Your task to perform on an android device: turn off javascript in the chrome app Image 0: 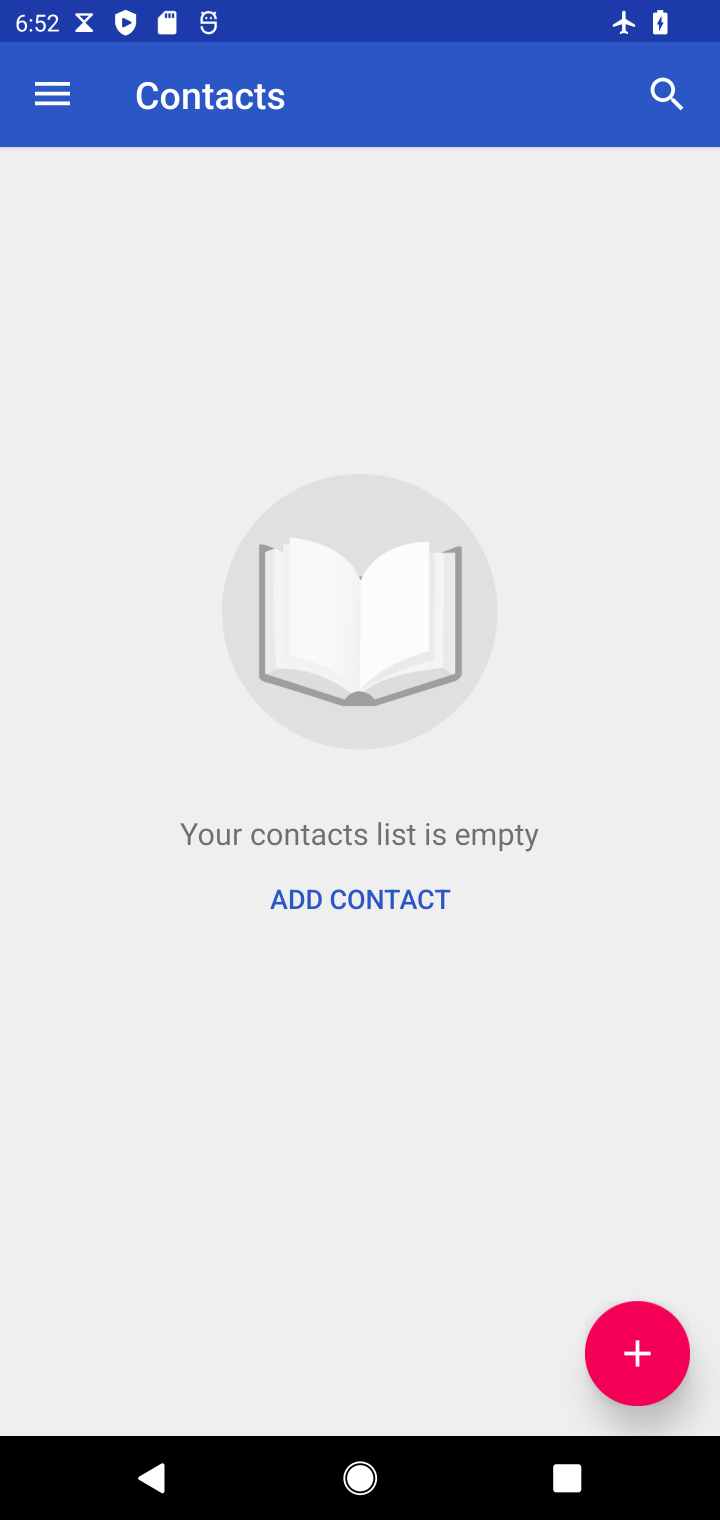
Step 0: press home button
Your task to perform on an android device: turn off javascript in the chrome app Image 1: 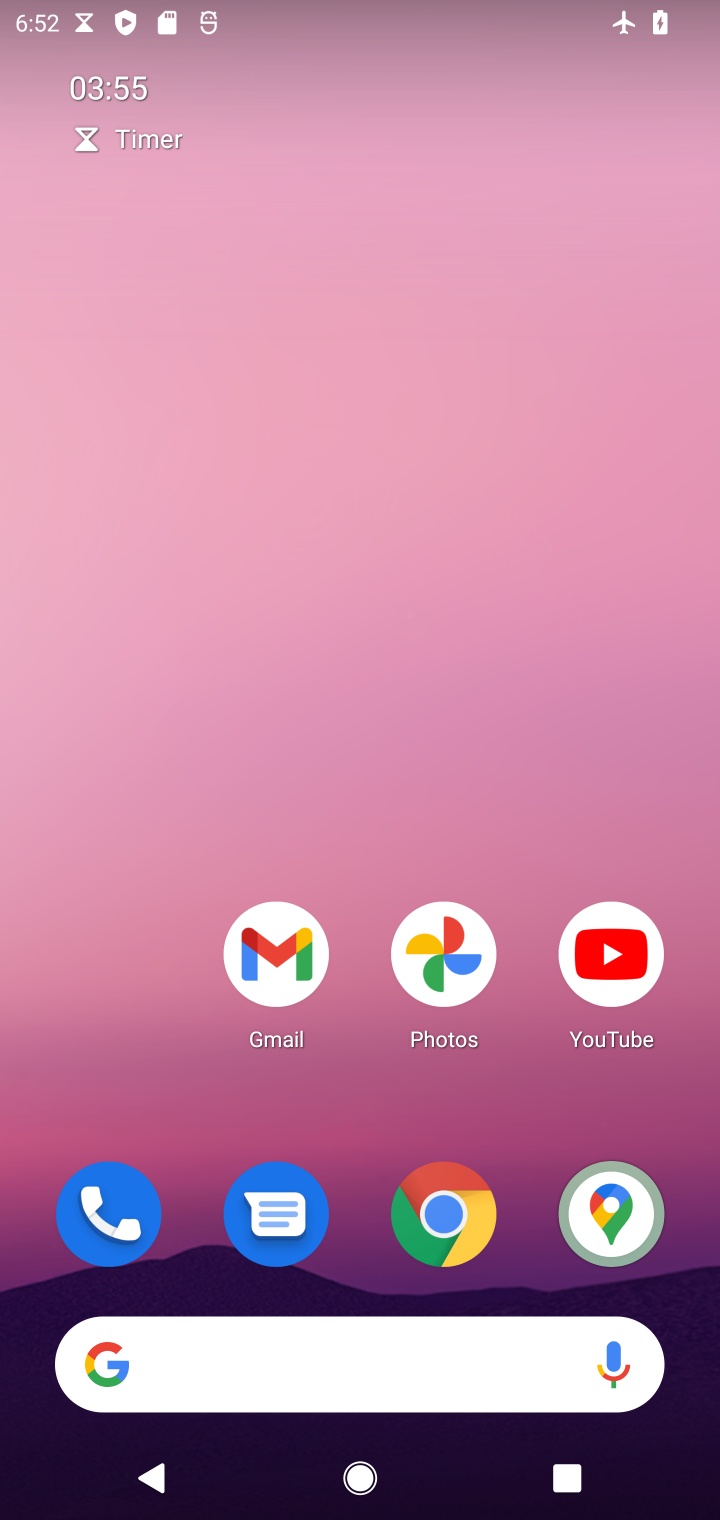
Step 1: click (452, 1237)
Your task to perform on an android device: turn off javascript in the chrome app Image 2: 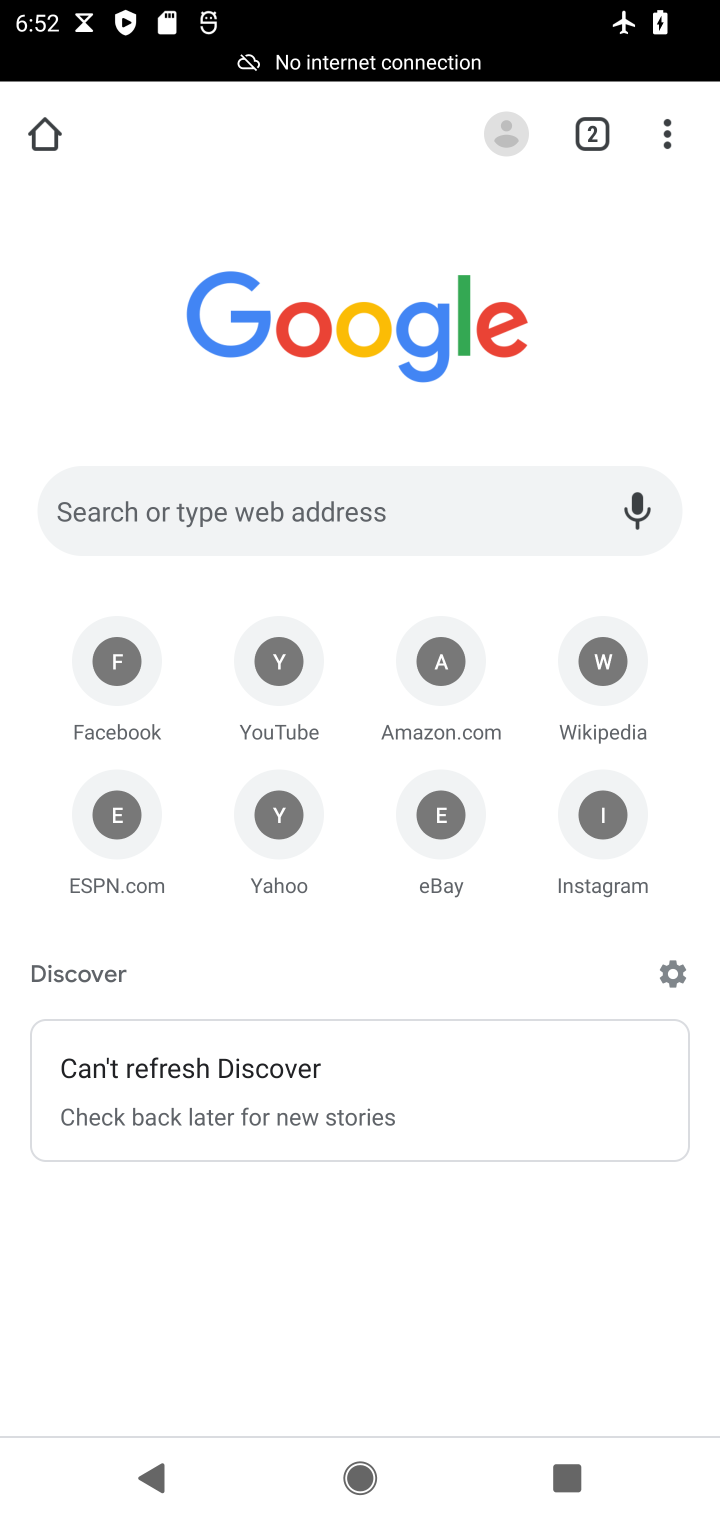
Step 2: click (674, 124)
Your task to perform on an android device: turn off javascript in the chrome app Image 3: 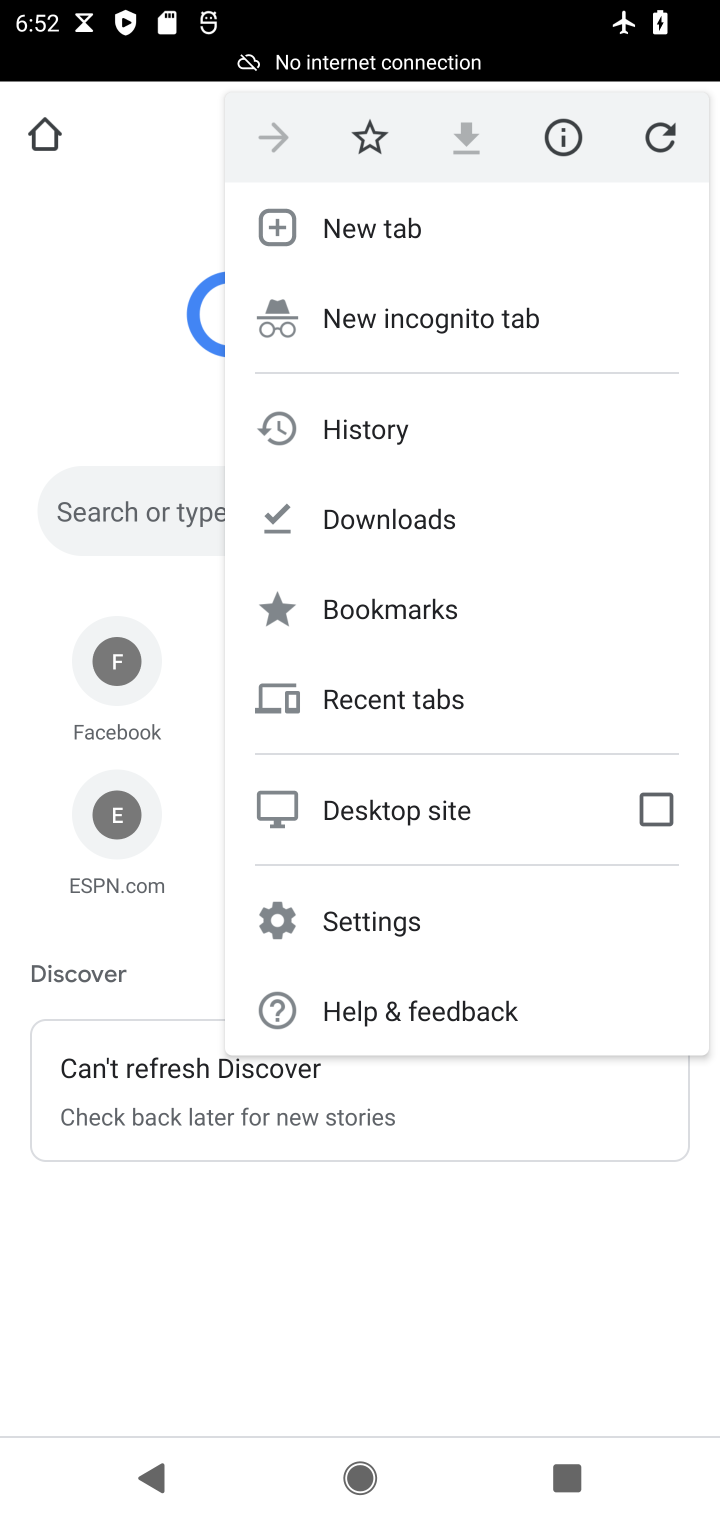
Step 3: click (363, 928)
Your task to perform on an android device: turn off javascript in the chrome app Image 4: 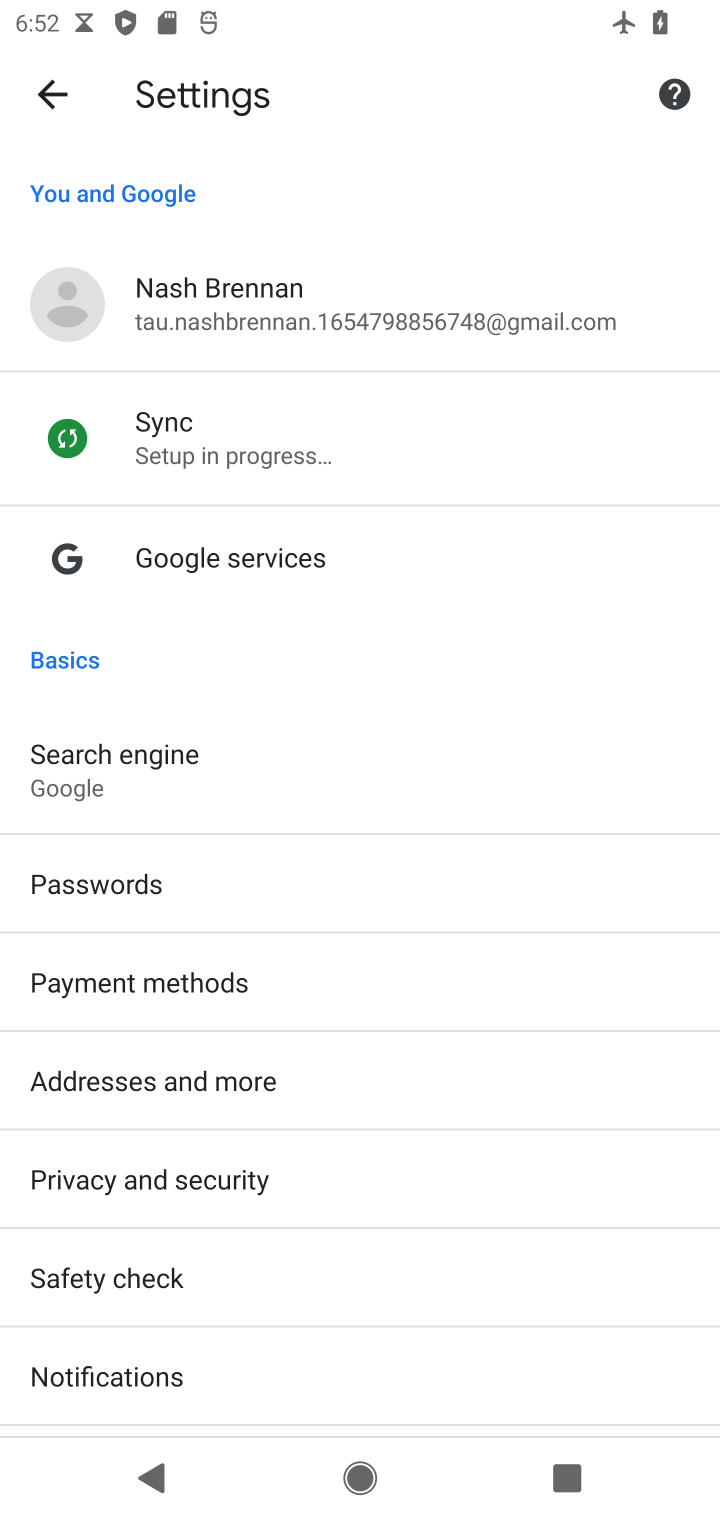
Step 4: drag from (245, 1310) to (363, 714)
Your task to perform on an android device: turn off javascript in the chrome app Image 5: 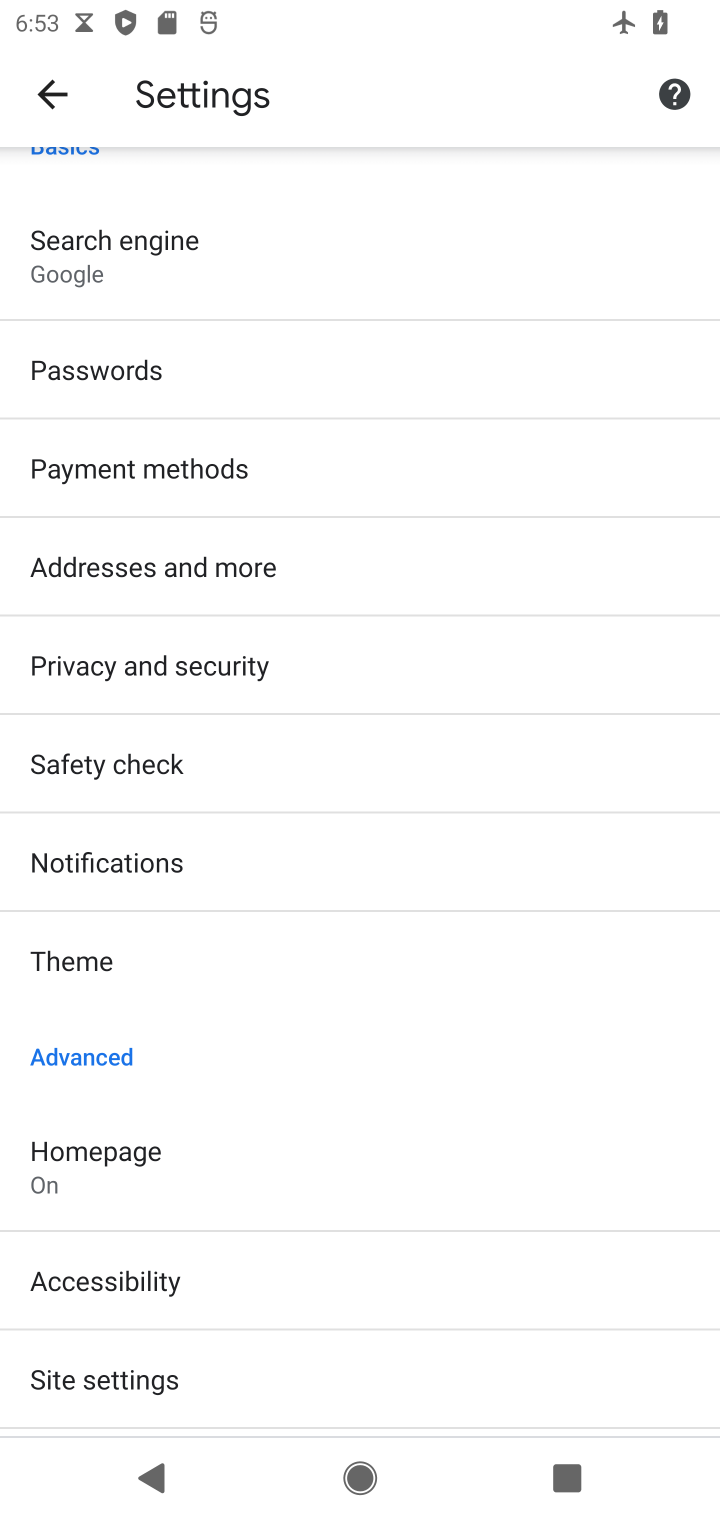
Step 5: drag from (265, 1167) to (317, 725)
Your task to perform on an android device: turn off javascript in the chrome app Image 6: 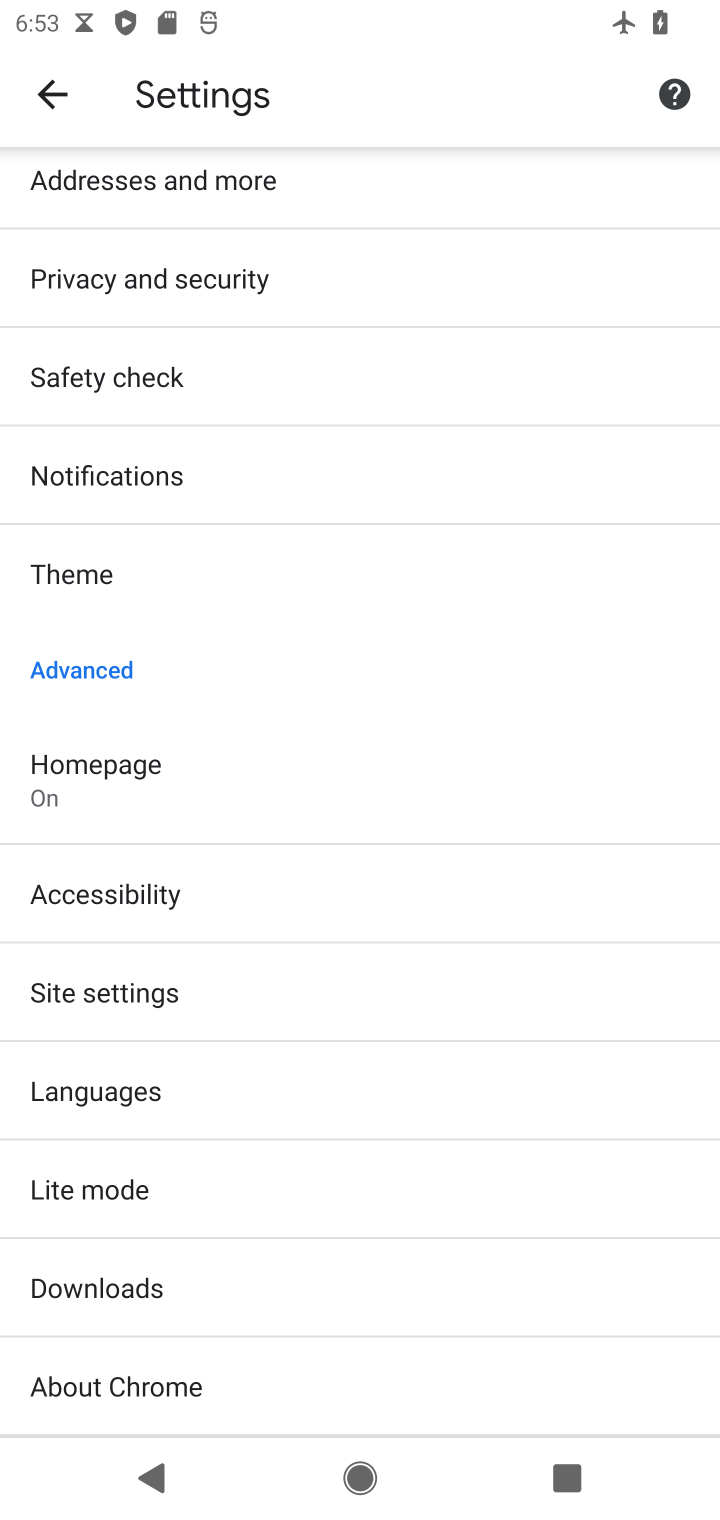
Step 6: click (133, 1022)
Your task to perform on an android device: turn off javascript in the chrome app Image 7: 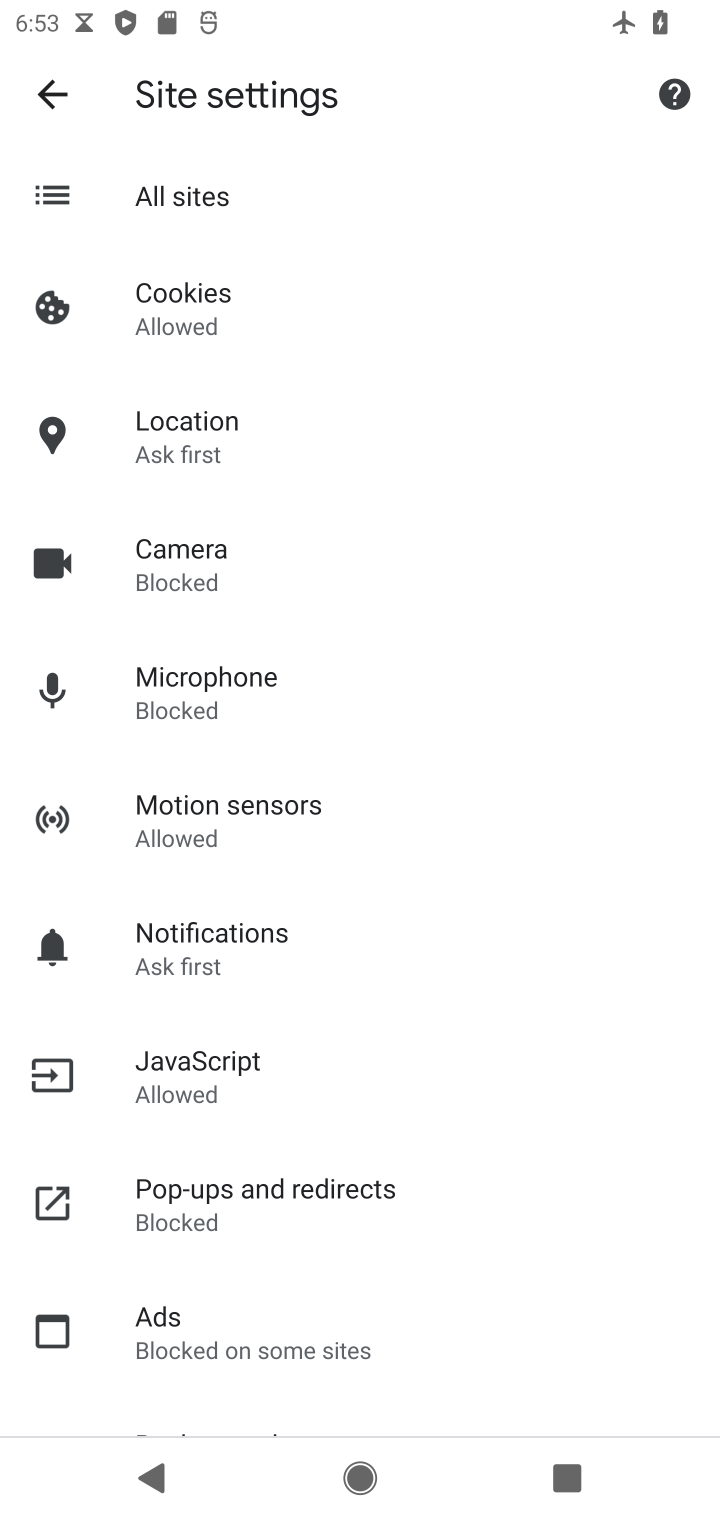
Step 7: click (222, 1092)
Your task to perform on an android device: turn off javascript in the chrome app Image 8: 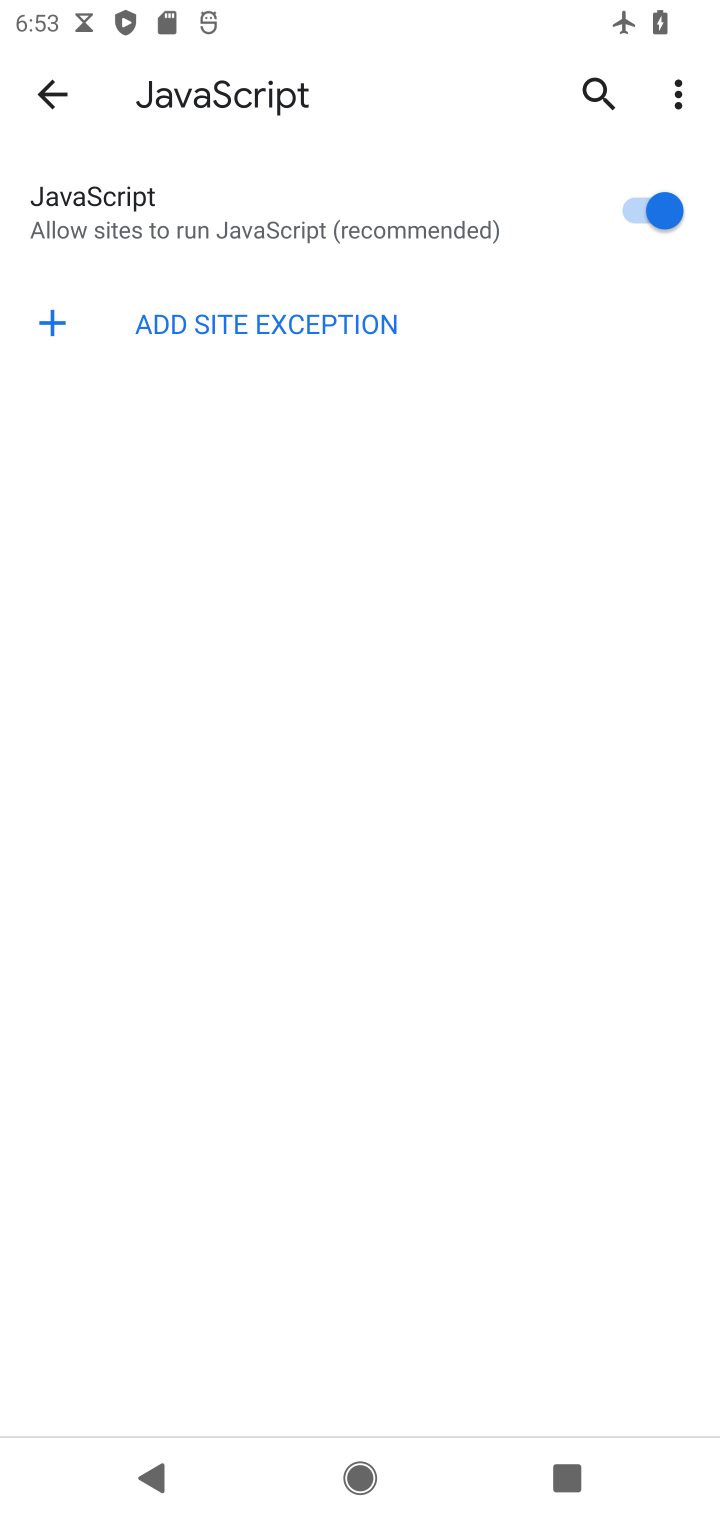
Step 8: click (594, 213)
Your task to perform on an android device: turn off javascript in the chrome app Image 9: 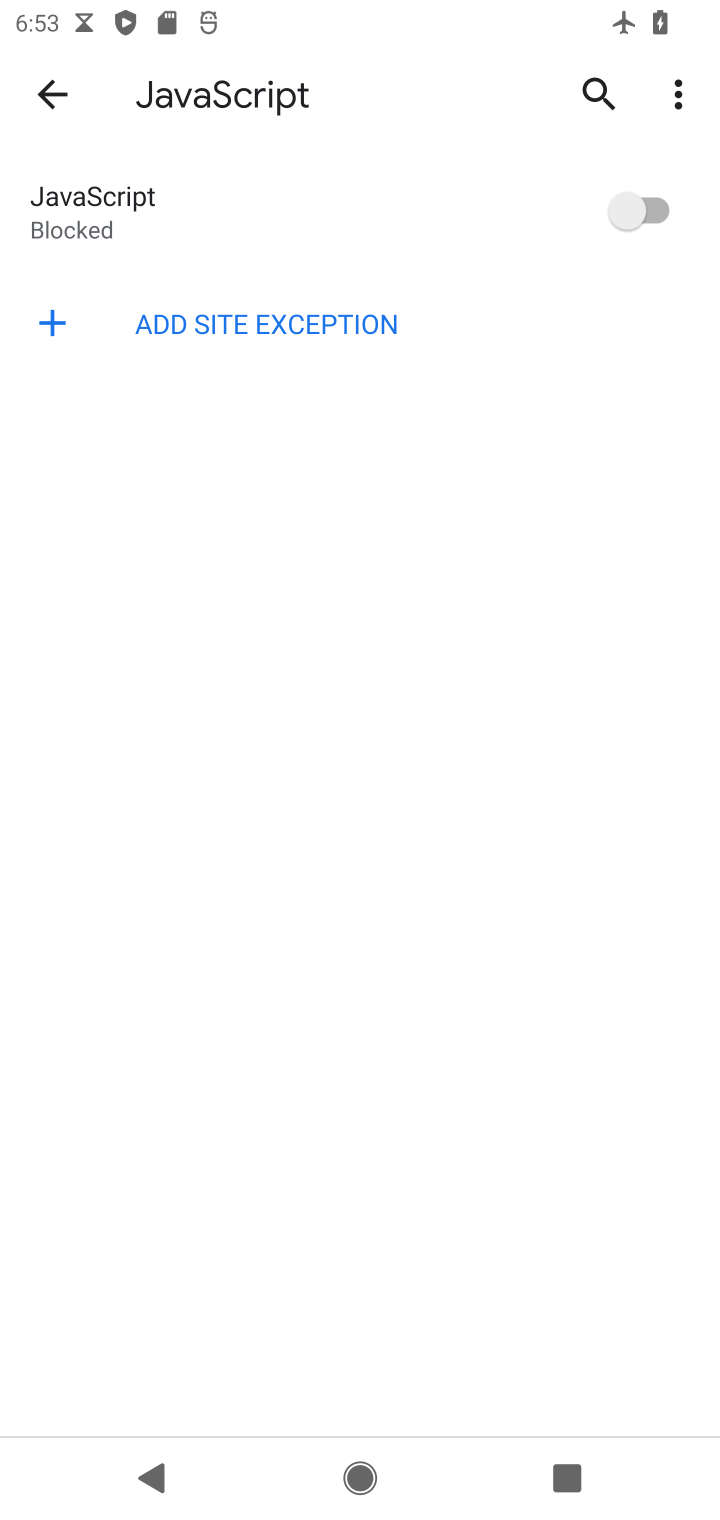
Step 9: task complete